Your task to perform on an android device: Open Reddit.com Image 0: 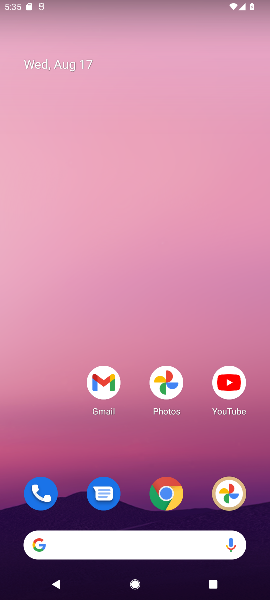
Step 0: drag from (136, 514) to (134, 117)
Your task to perform on an android device: Open Reddit.com Image 1: 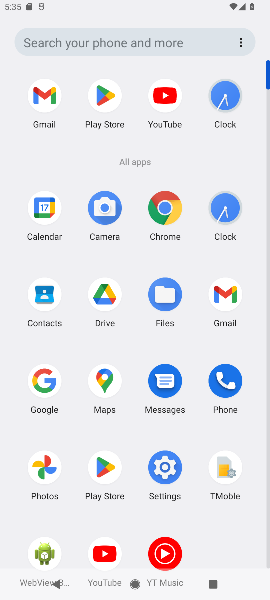
Step 1: click (49, 395)
Your task to perform on an android device: Open Reddit.com Image 2: 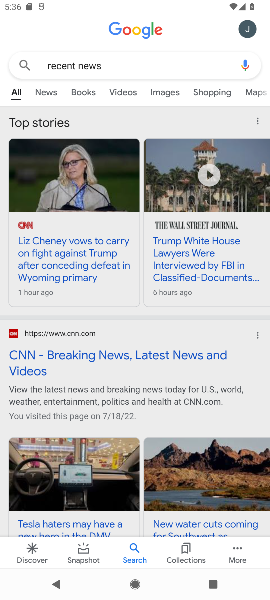
Step 2: click (178, 69)
Your task to perform on an android device: Open Reddit.com Image 3: 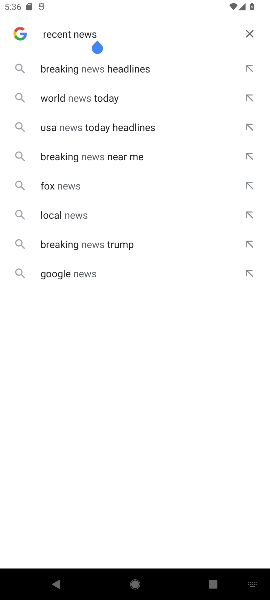
Step 3: click (253, 29)
Your task to perform on an android device: Open Reddit.com Image 4: 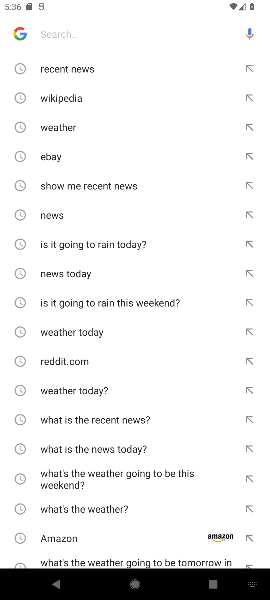
Step 4: type "Reddit.com"
Your task to perform on an android device: Open Reddit.com Image 5: 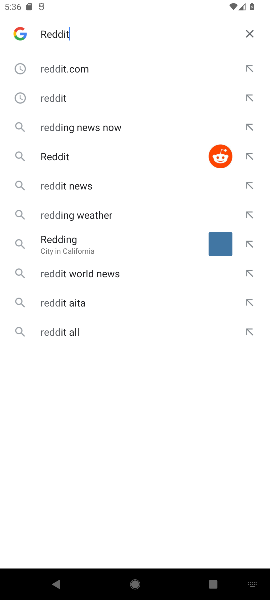
Step 5: press enter
Your task to perform on an android device: Open Reddit.com Image 6: 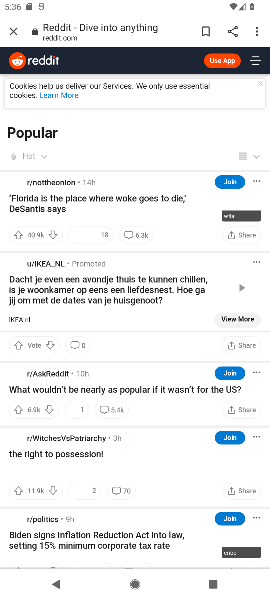
Step 6: task complete